Your task to perform on an android device: When is my next appointment? Image 0: 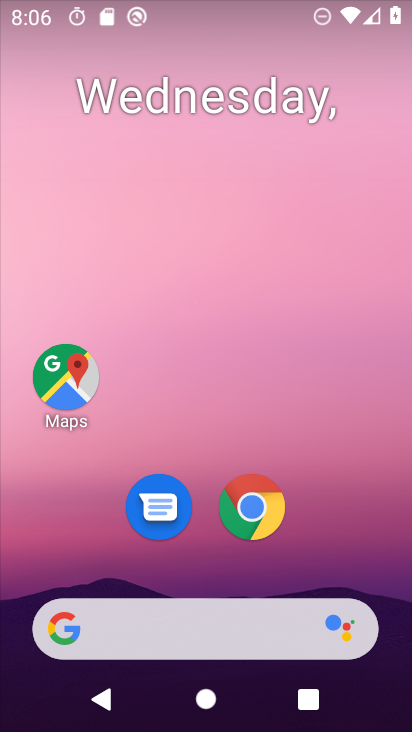
Step 0: drag from (275, 728) to (250, 226)
Your task to perform on an android device: When is my next appointment? Image 1: 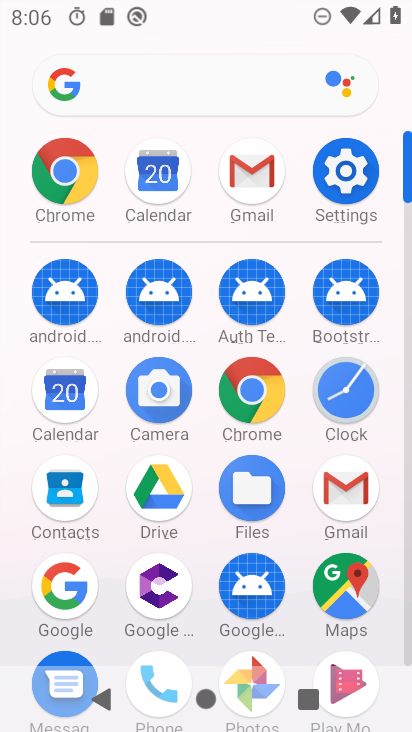
Step 1: click (57, 395)
Your task to perform on an android device: When is my next appointment? Image 2: 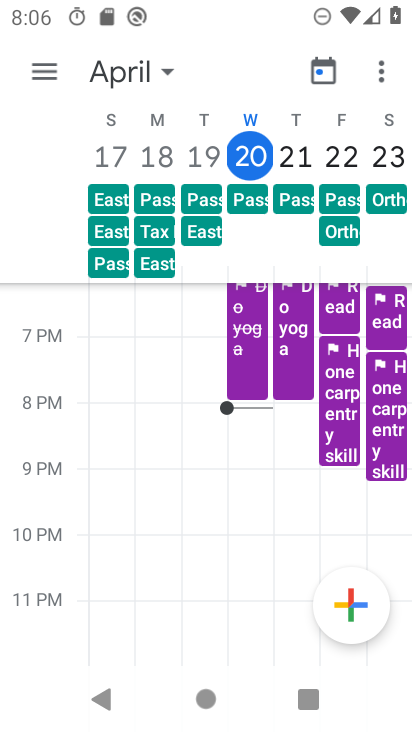
Step 2: click (37, 60)
Your task to perform on an android device: When is my next appointment? Image 3: 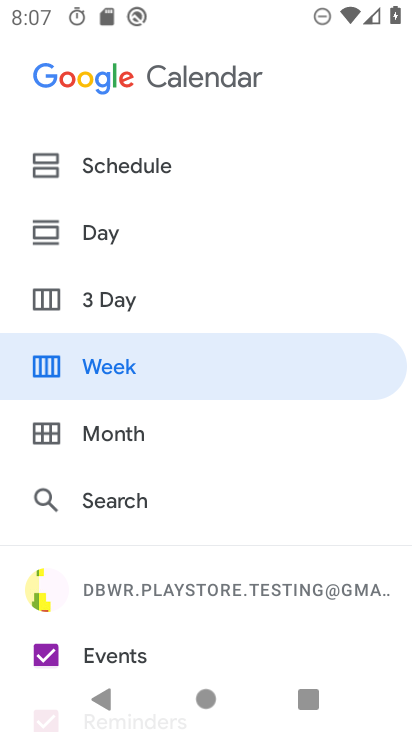
Step 3: click (119, 175)
Your task to perform on an android device: When is my next appointment? Image 4: 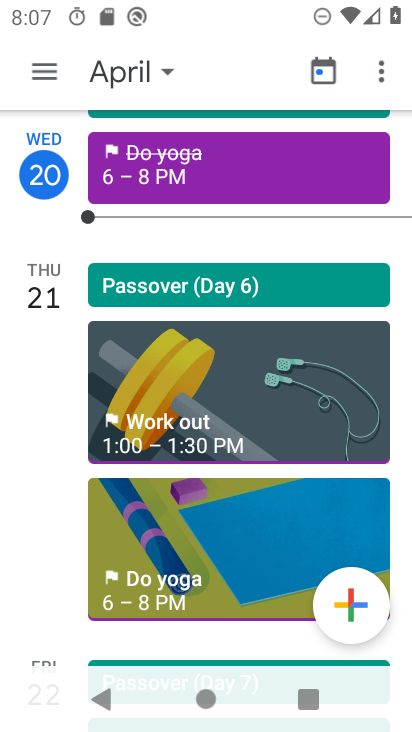
Step 4: task complete